Your task to perform on an android device: Search for pizza restaurants on Maps Image 0: 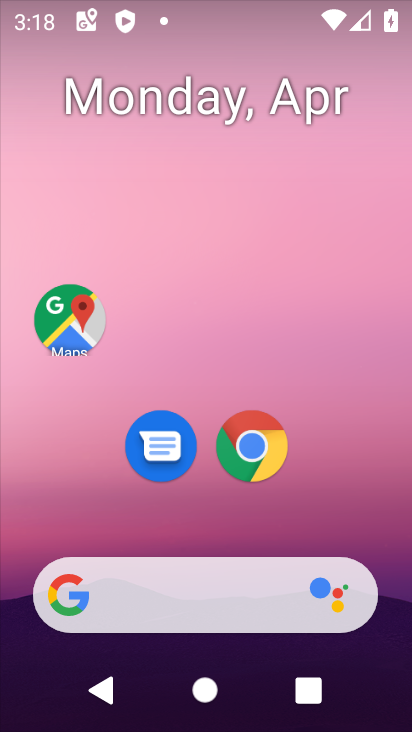
Step 0: drag from (369, 533) to (258, 38)
Your task to perform on an android device: Search for pizza restaurants on Maps Image 1: 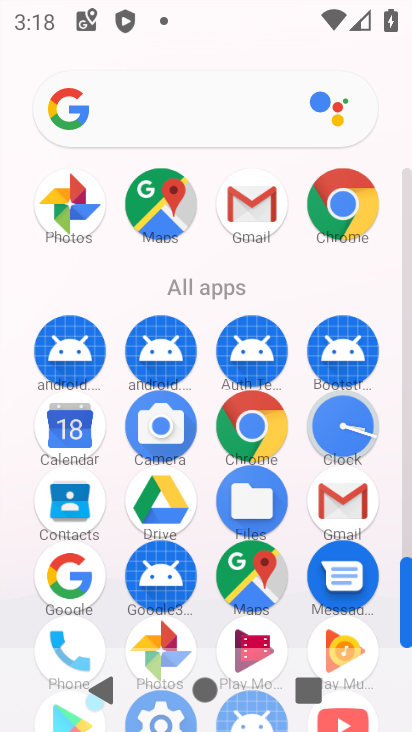
Step 1: drag from (14, 585) to (12, 354)
Your task to perform on an android device: Search for pizza restaurants on Maps Image 2: 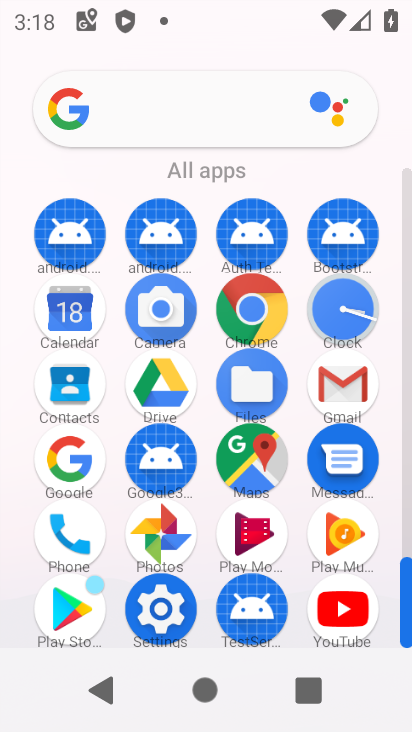
Step 2: click (255, 472)
Your task to perform on an android device: Search for pizza restaurants on Maps Image 3: 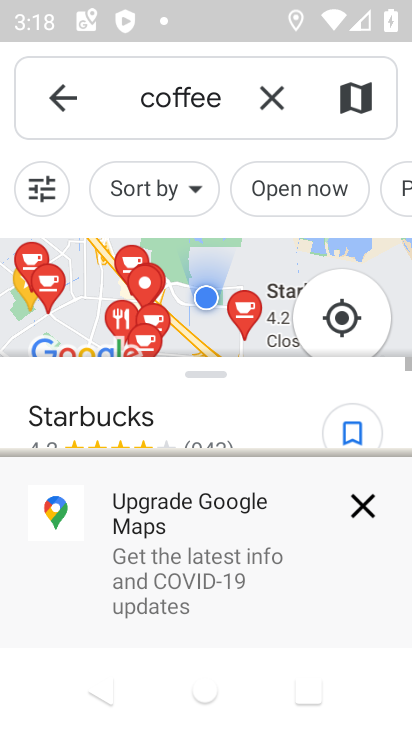
Step 3: click (277, 89)
Your task to perform on an android device: Search for pizza restaurants on Maps Image 4: 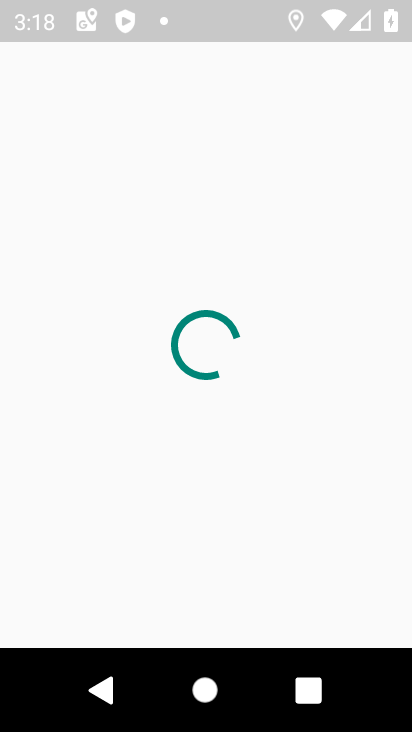
Step 4: click (297, 102)
Your task to perform on an android device: Search for pizza restaurants on Maps Image 5: 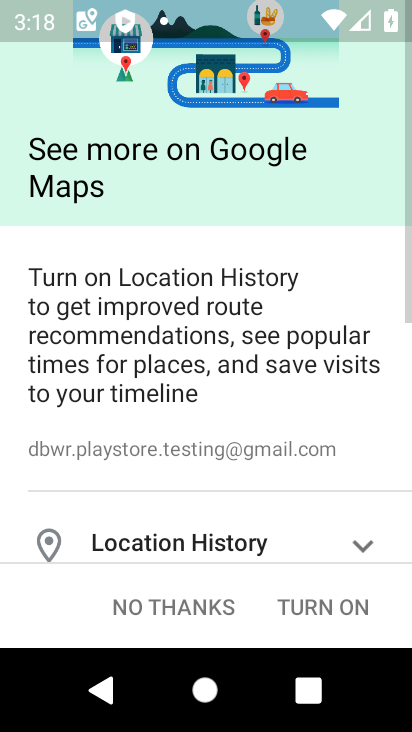
Step 5: click (332, 594)
Your task to perform on an android device: Search for pizza restaurants on Maps Image 6: 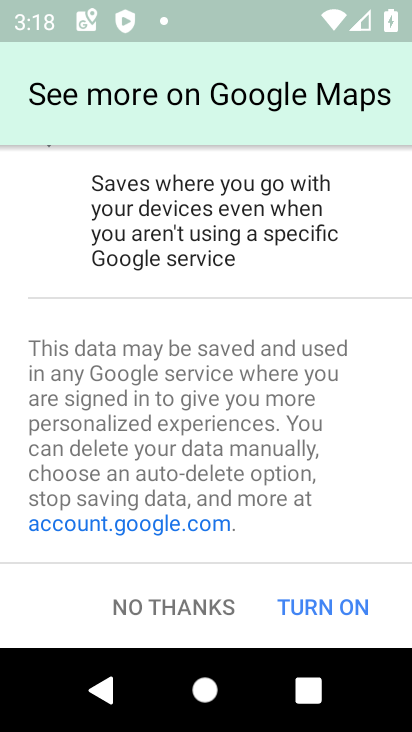
Step 6: click (332, 594)
Your task to perform on an android device: Search for pizza restaurants on Maps Image 7: 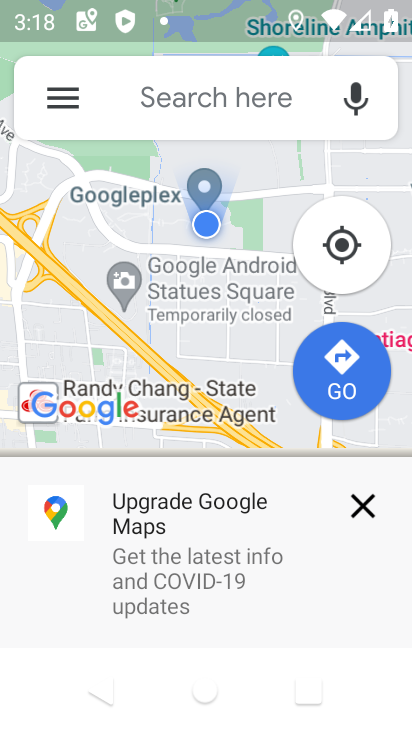
Step 7: click (299, 83)
Your task to perform on an android device: Search for pizza restaurants on Maps Image 8: 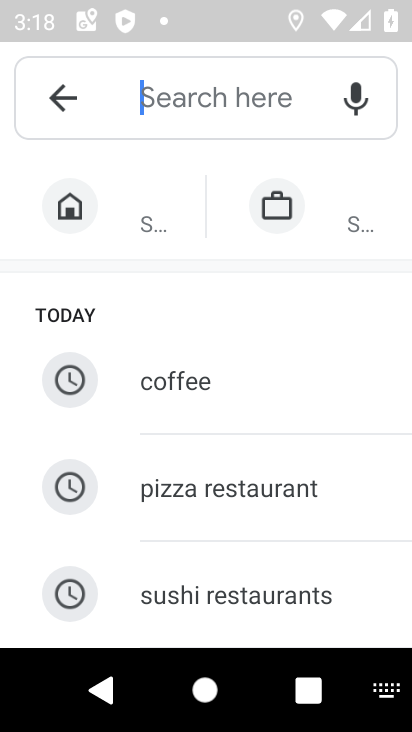
Step 8: drag from (314, 568) to (314, 327)
Your task to perform on an android device: Search for pizza restaurants on Maps Image 9: 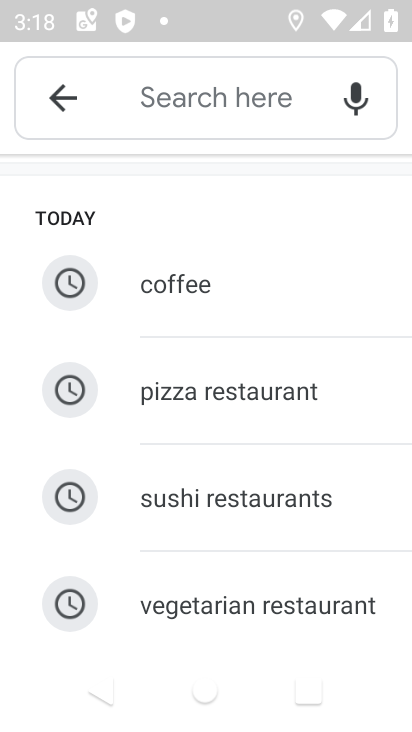
Step 9: drag from (314, 597) to (325, 328)
Your task to perform on an android device: Search for pizza restaurants on Maps Image 10: 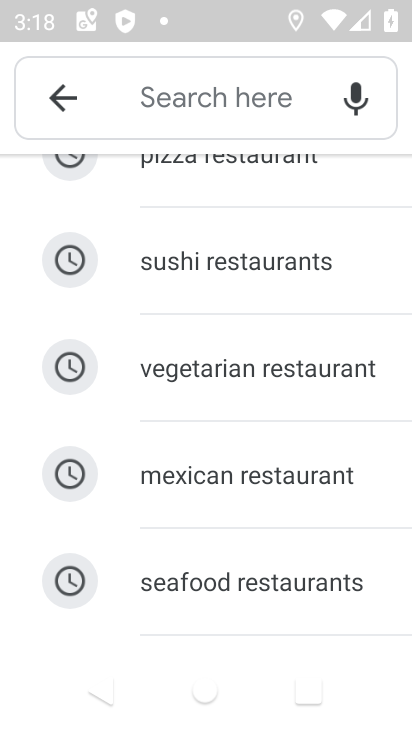
Step 10: type " pizza restaurants"
Your task to perform on an android device: Search for pizza restaurants on Maps Image 11: 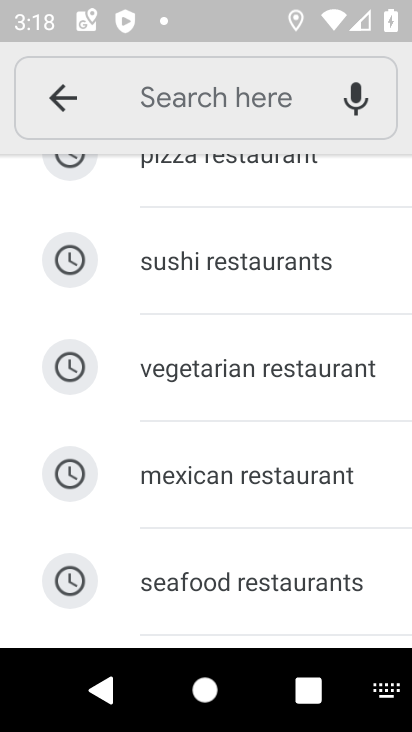
Step 11: click (238, 99)
Your task to perform on an android device: Search for pizza restaurants on Maps Image 12: 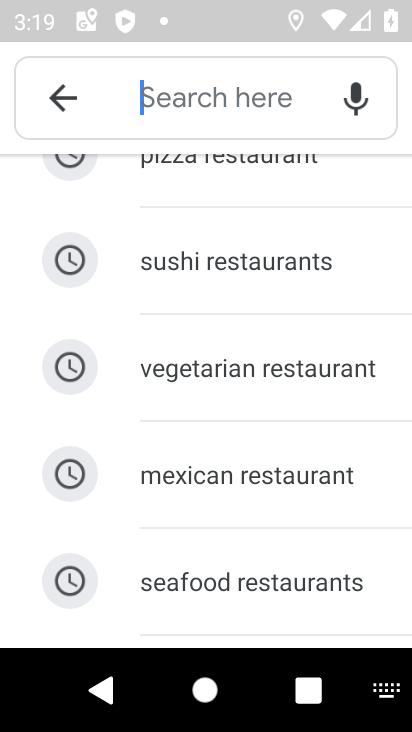
Step 12: type " pizza restaurants"
Your task to perform on an android device: Search for pizza restaurants on Maps Image 13: 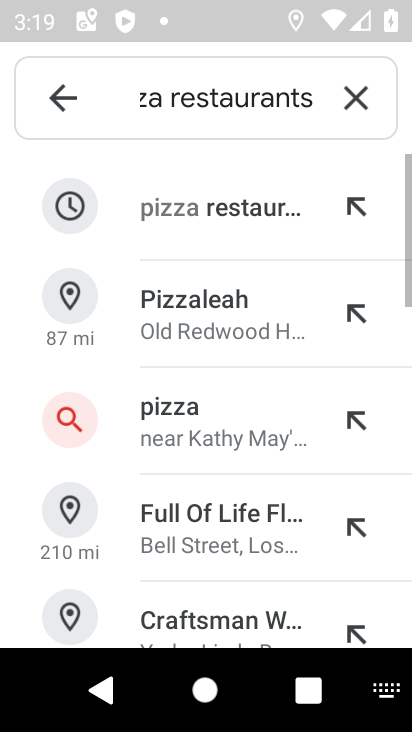
Step 13: click (169, 197)
Your task to perform on an android device: Search for pizza restaurants on Maps Image 14: 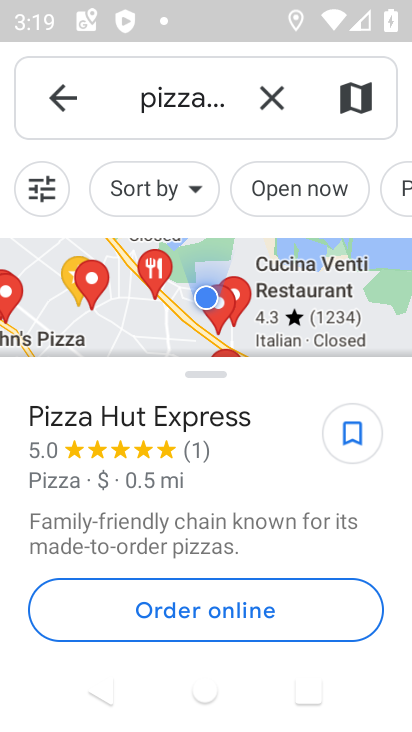
Step 14: task complete